Your task to perform on an android device: set an alarm Image 0: 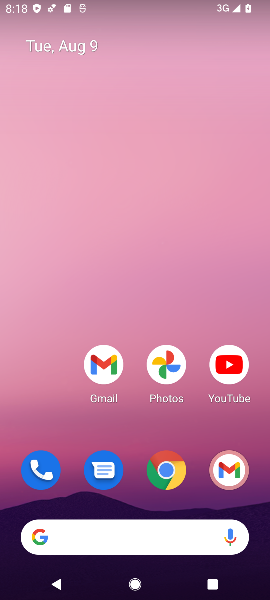
Step 0: drag from (117, 537) to (169, 138)
Your task to perform on an android device: set an alarm Image 1: 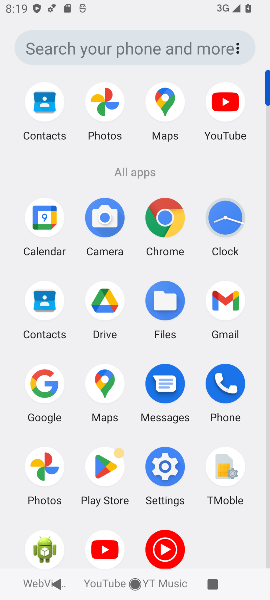
Step 1: click (226, 218)
Your task to perform on an android device: set an alarm Image 2: 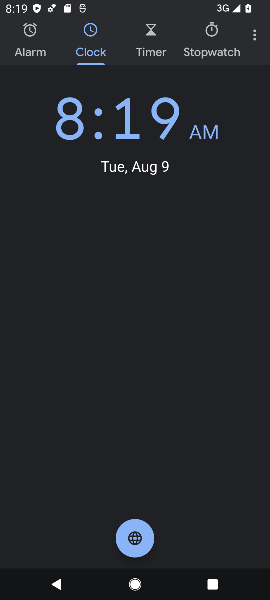
Step 2: click (29, 35)
Your task to perform on an android device: set an alarm Image 3: 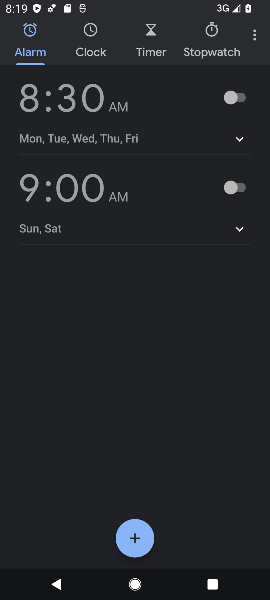
Step 3: click (135, 537)
Your task to perform on an android device: set an alarm Image 4: 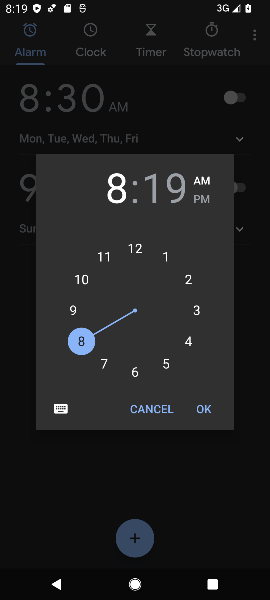
Step 4: click (202, 315)
Your task to perform on an android device: set an alarm Image 5: 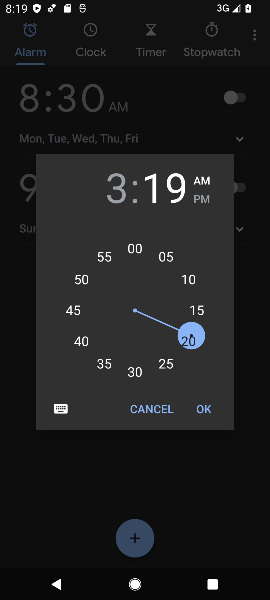
Step 5: click (76, 305)
Your task to perform on an android device: set an alarm Image 6: 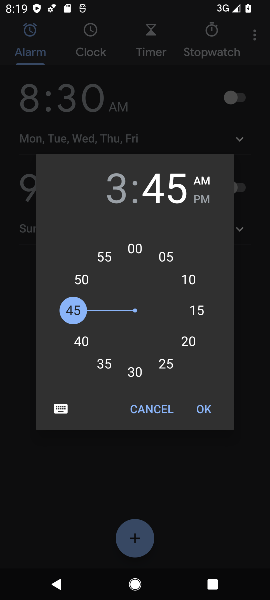
Step 6: click (204, 412)
Your task to perform on an android device: set an alarm Image 7: 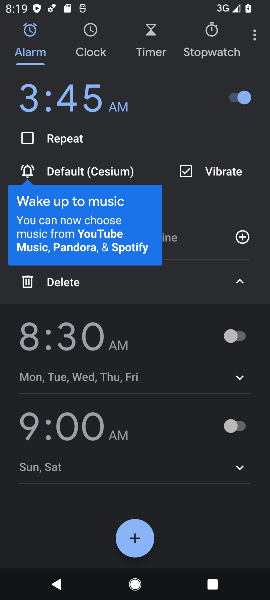
Step 7: click (242, 281)
Your task to perform on an android device: set an alarm Image 8: 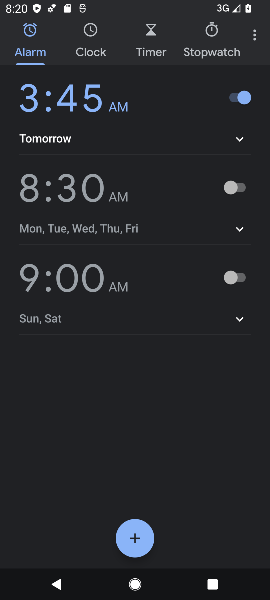
Step 8: task complete